Your task to perform on an android device: toggle sleep mode Image 0: 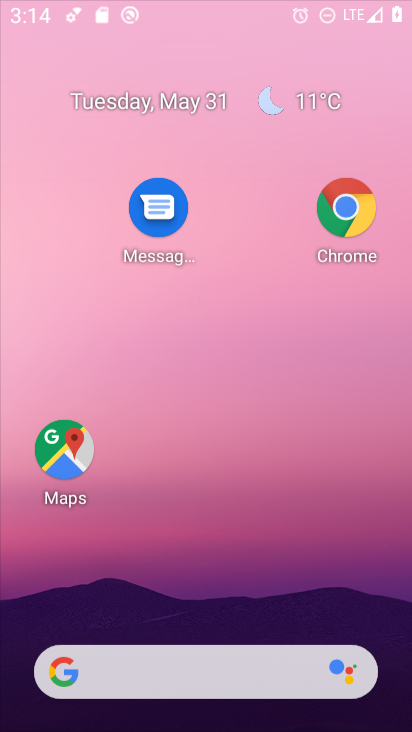
Step 0: click (320, 96)
Your task to perform on an android device: toggle sleep mode Image 1: 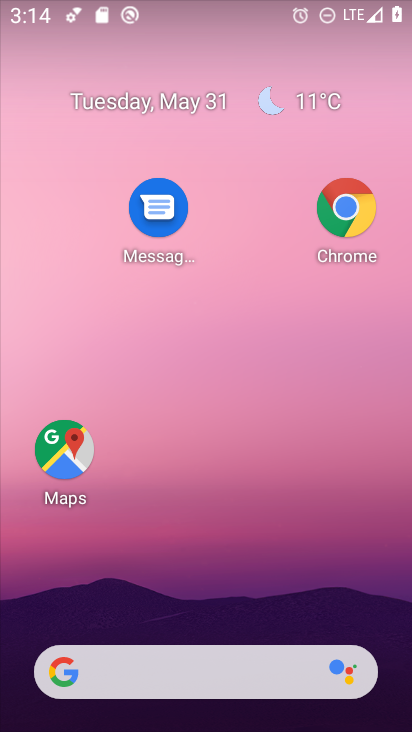
Step 1: drag from (157, 584) to (175, 15)
Your task to perform on an android device: toggle sleep mode Image 2: 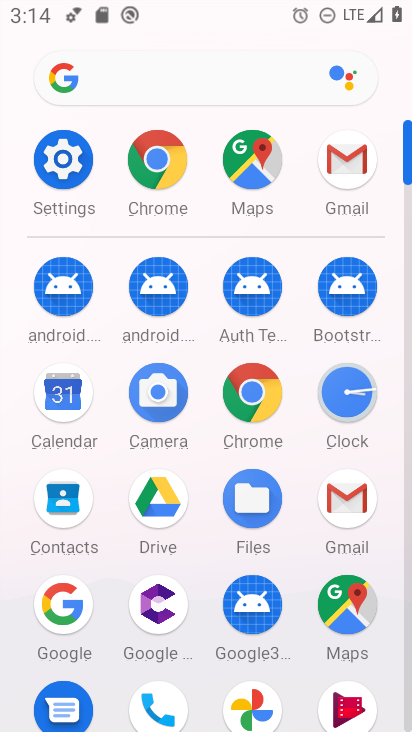
Step 2: click (67, 162)
Your task to perform on an android device: toggle sleep mode Image 3: 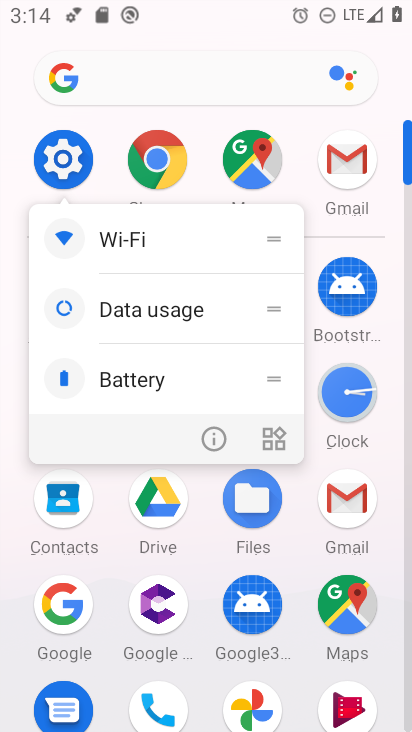
Step 3: click (206, 445)
Your task to perform on an android device: toggle sleep mode Image 4: 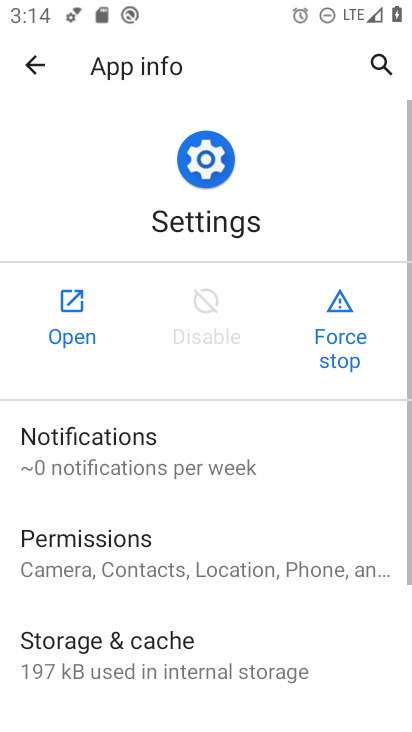
Step 4: click (77, 320)
Your task to perform on an android device: toggle sleep mode Image 5: 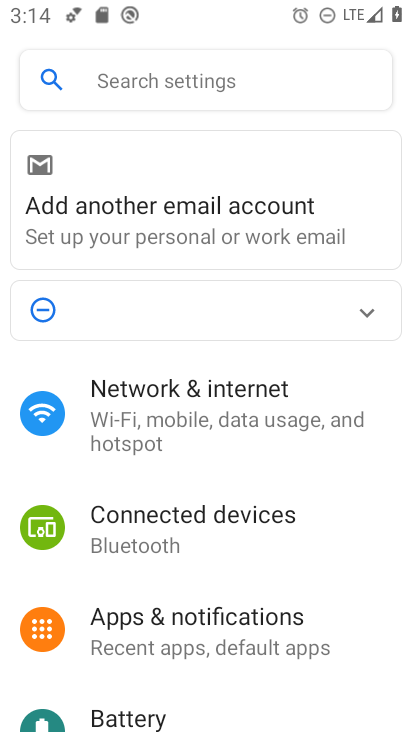
Step 5: drag from (233, 601) to (344, 11)
Your task to perform on an android device: toggle sleep mode Image 6: 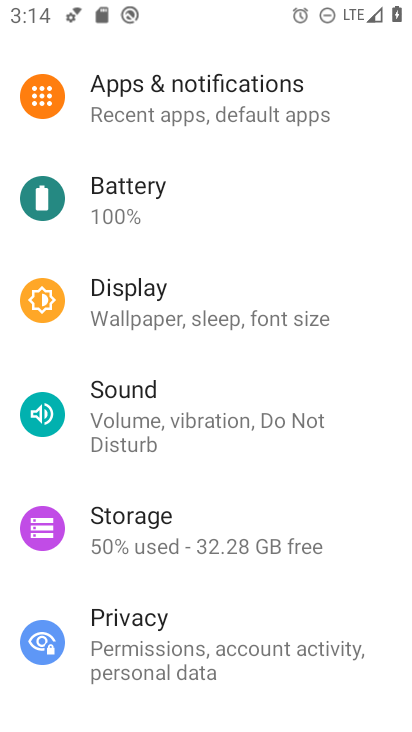
Step 6: click (176, 294)
Your task to perform on an android device: toggle sleep mode Image 7: 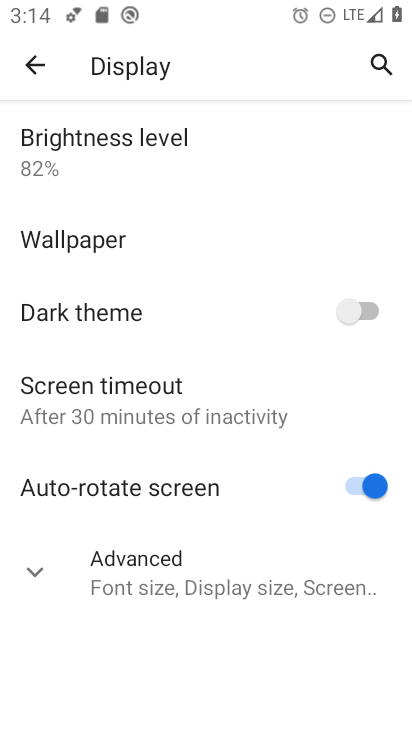
Step 7: drag from (178, 611) to (243, 86)
Your task to perform on an android device: toggle sleep mode Image 8: 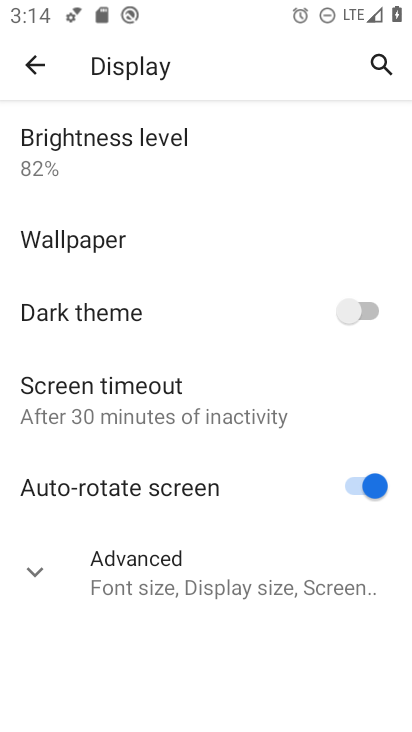
Step 8: click (175, 574)
Your task to perform on an android device: toggle sleep mode Image 9: 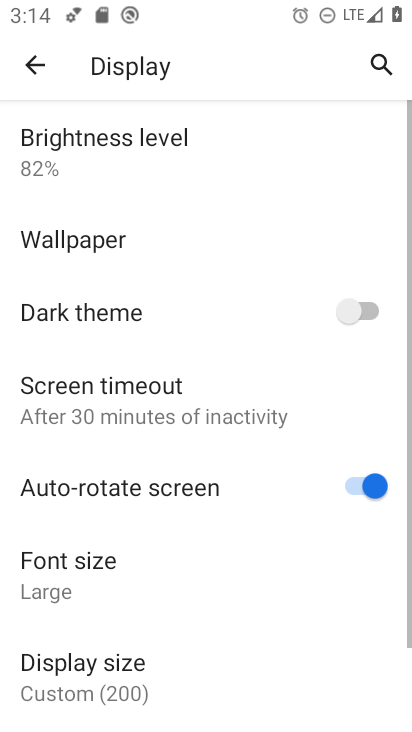
Step 9: drag from (175, 571) to (283, 98)
Your task to perform on an android device: toggle sleep mode Image 10: 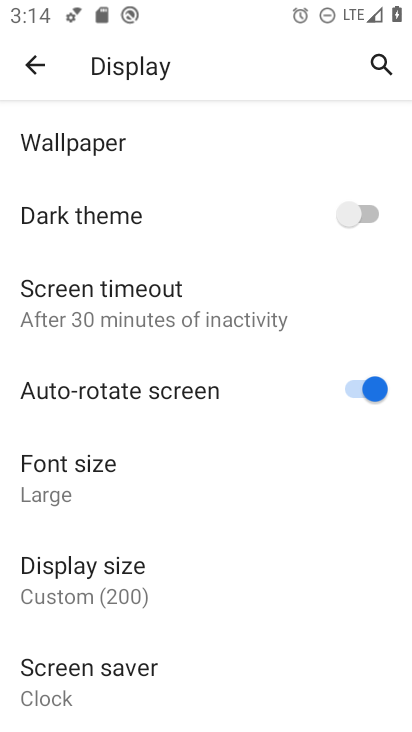
Step 10: click (175, 314)
Your task to perform on an android device: toggle sleep mode Image 11: 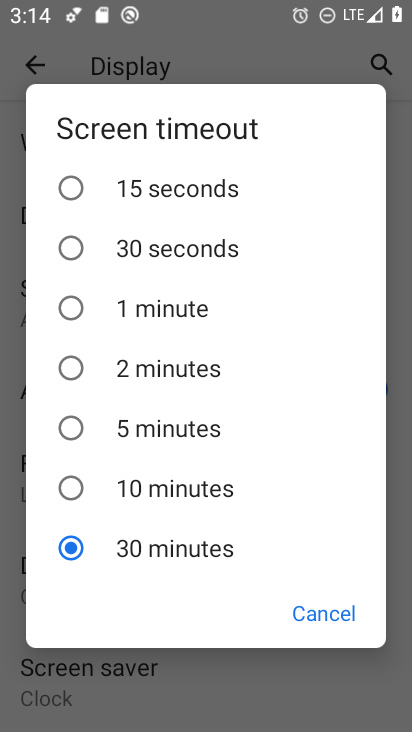
Step 11: task complete